Your task to perform on an android device: toggle priority inbox in the gmail app Image 0: 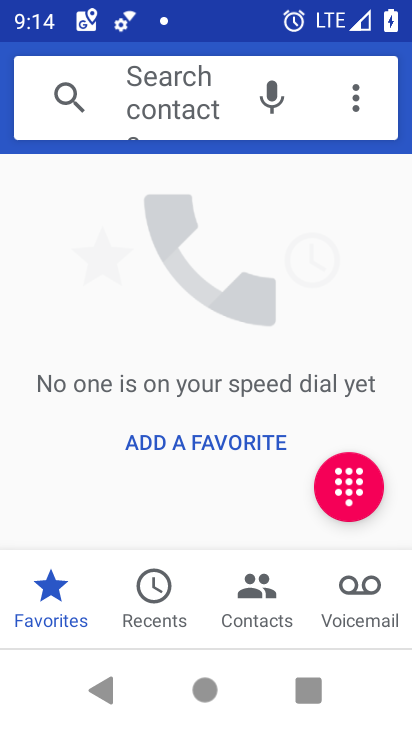
Step 0: press home button
Your task to perform on an android device: toggle priority inbox in the gmail app Image 1: 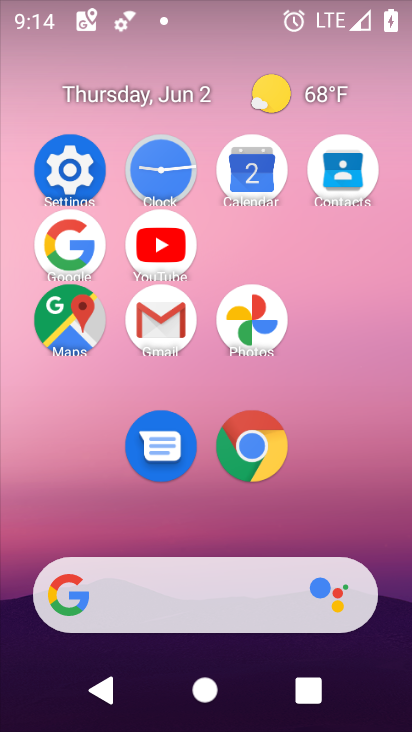
Step 1: click (170, 325)
Your task to perform on an android device: toggle priority inbox in the gmail app Image 2: 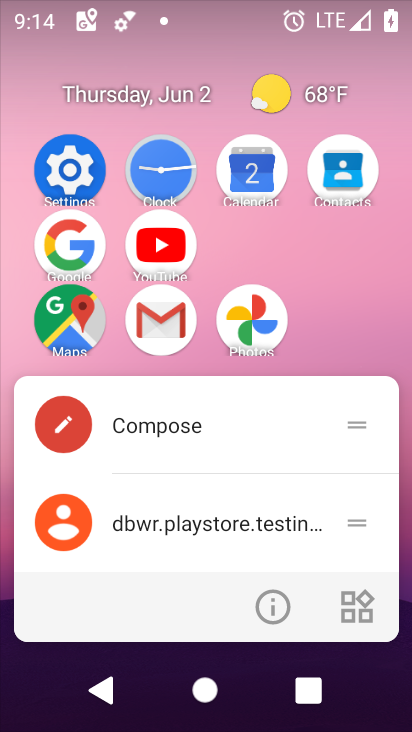
Step 2: click (170, 325)
Your task to perform on an android device: toggle priority inbox in the gmail app Image 3: 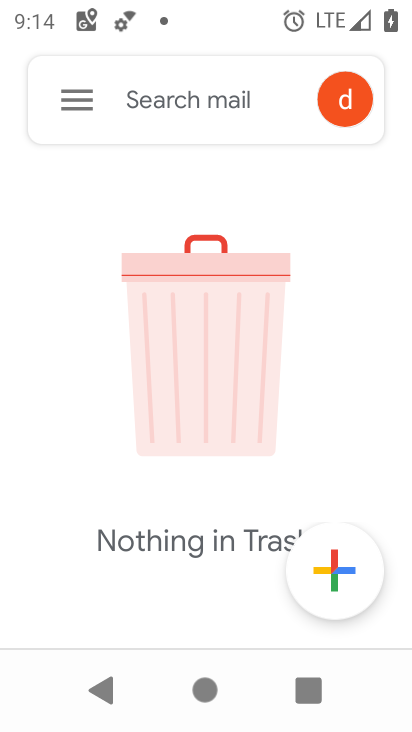
Step 3: click (100, 131)
Your task to perform on an android device: toggle priority inbox in the gmail app Image 4: 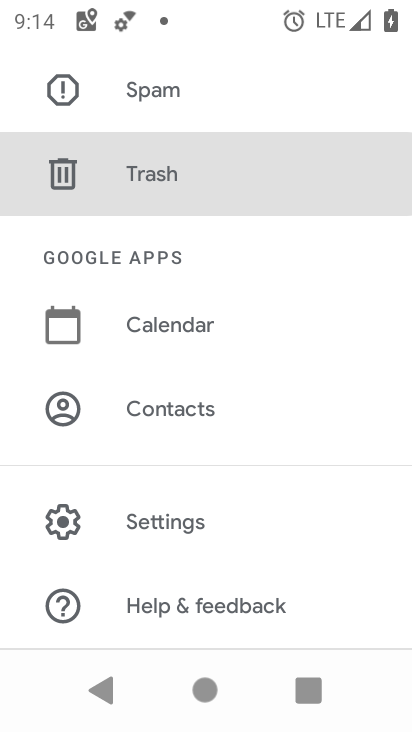
Step 4: click (245, 522)
Your task to perform on an android device: toggle priority inbox in the gmail app Image 5: 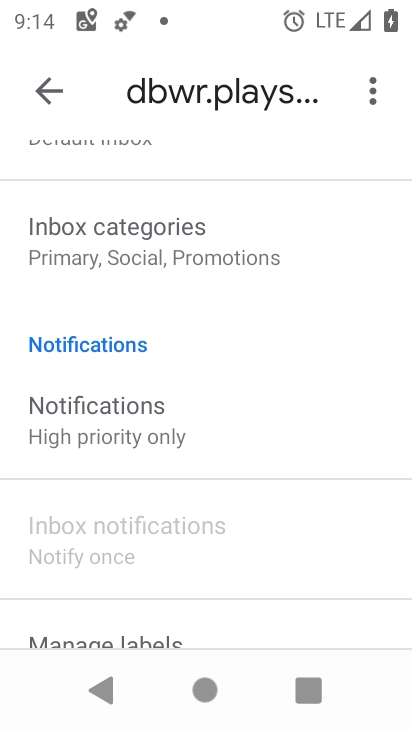
Step 5: drag from (274, 280) to (314, 507)
Your task to perform on an android device: toggle priority inbox in the gmail app Image 6: 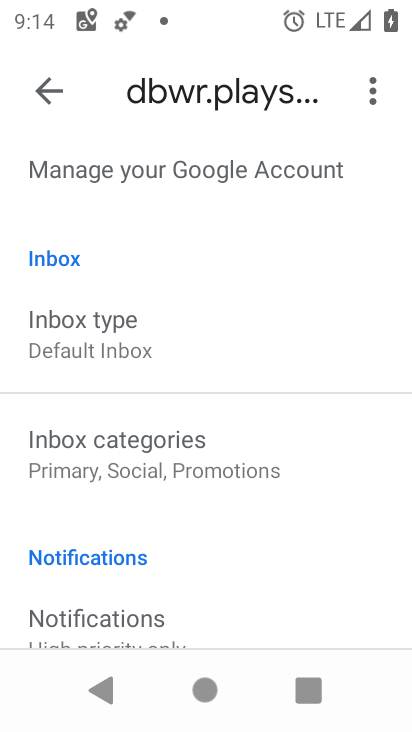
Step 6: click (252, 316)
Your task to perform on an android device: toggle priority inbox in the gmail app Image 7: 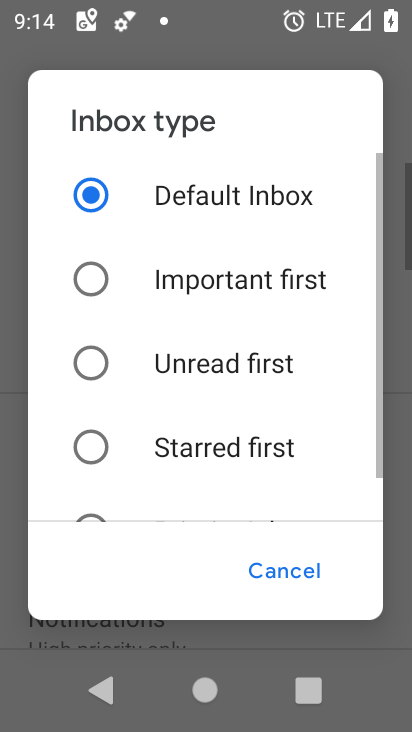
Step 7: drag from (162, 481) to (184, 180)
Your task to perform on an android device: toggle priority inbox in the gmail app Image 8: 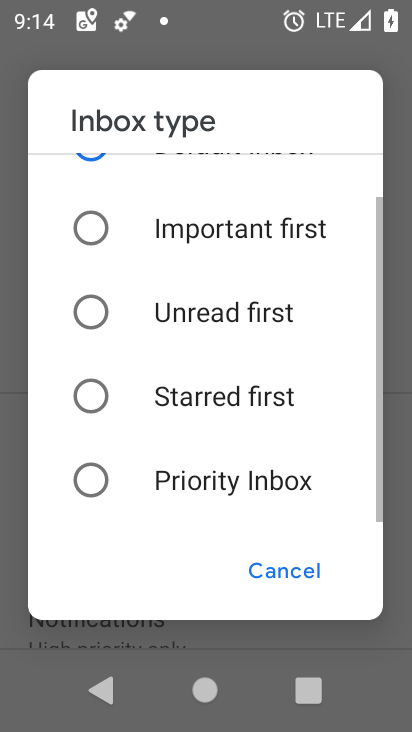
Step 8: click (230, 508)
Your task to perform on an android device: toggle priority inbox in the gmail app Image 9: 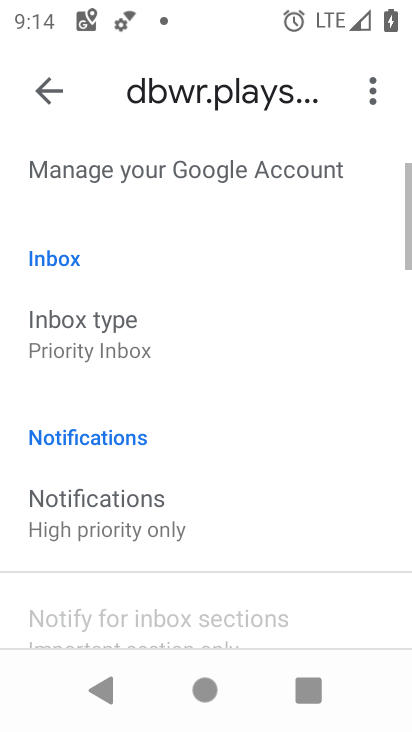
Step 9: task complete